Your task to perform on an android device: Is it going to rain tomorrow? Image 0: 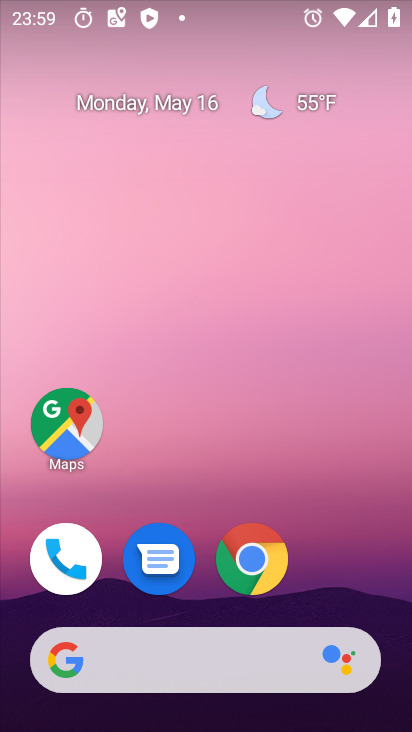
Step 0: click (315, 102)
Your task to perform on an android device: Is it going to rain tomorrow? Image 1: 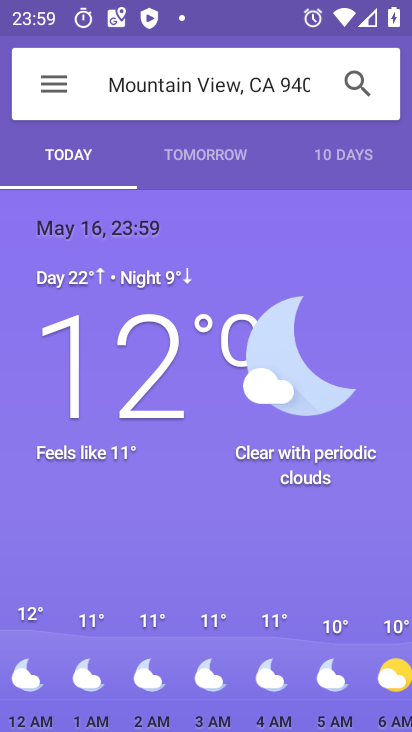
Step 1: click (211, 155)
Your task to perform on an android device: Is it going to rain tomorrow? Image 2: 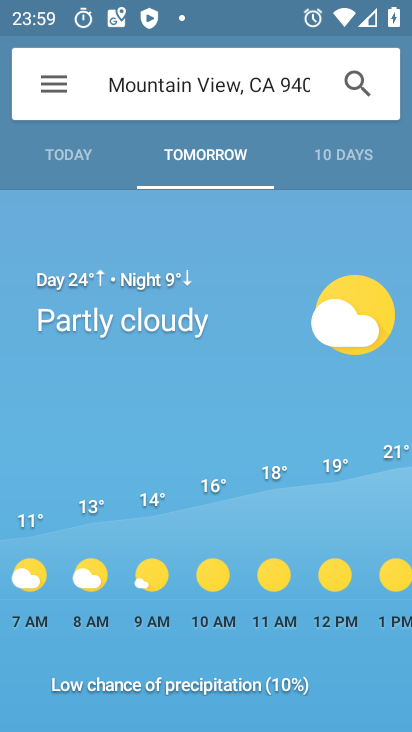
Step 2: task complete